Your task to perform on an android device: uninstall "TextNow: Call + Text Unlimited" Image 0: 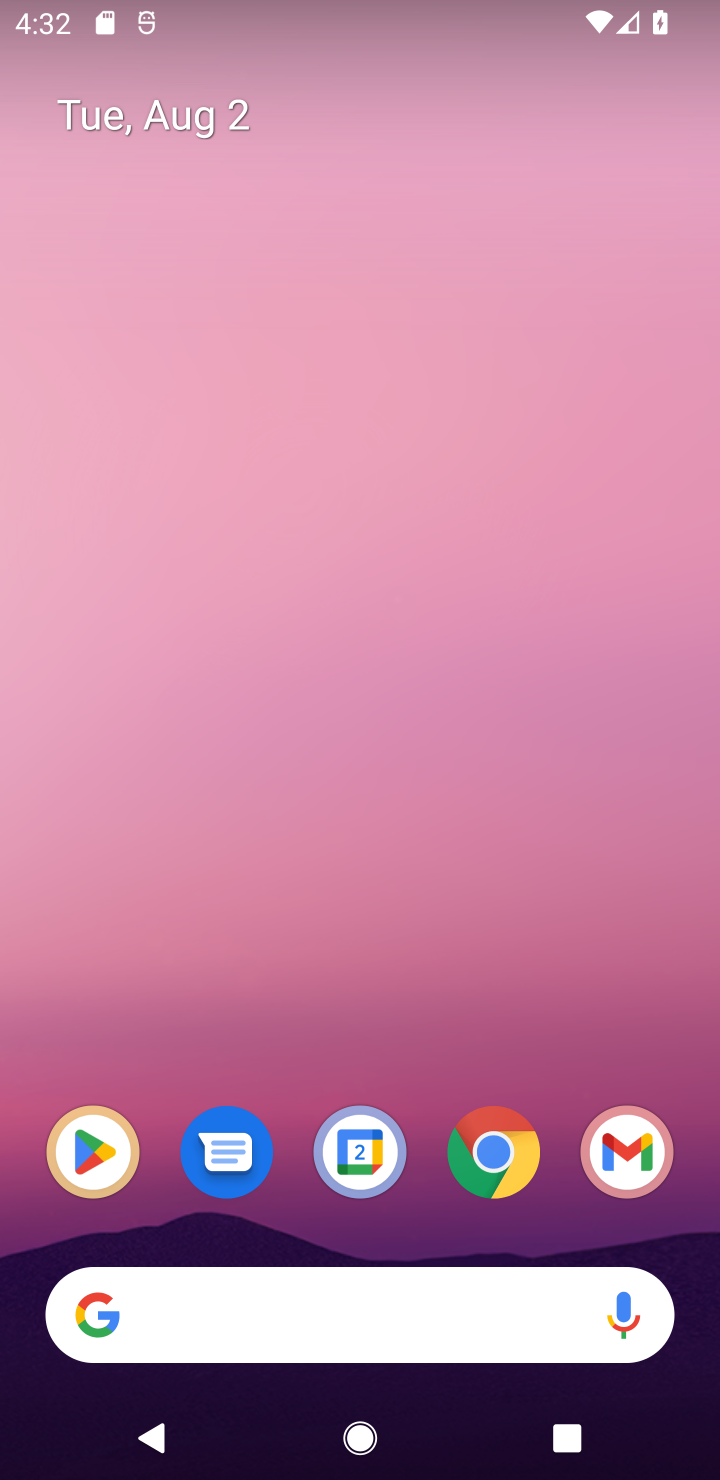
Step 0: drag from (413, 1229) to (66, 1077)
Your task to perform on an android device: uninstall "TextNow: Call + Text Unlimited" Image 1: 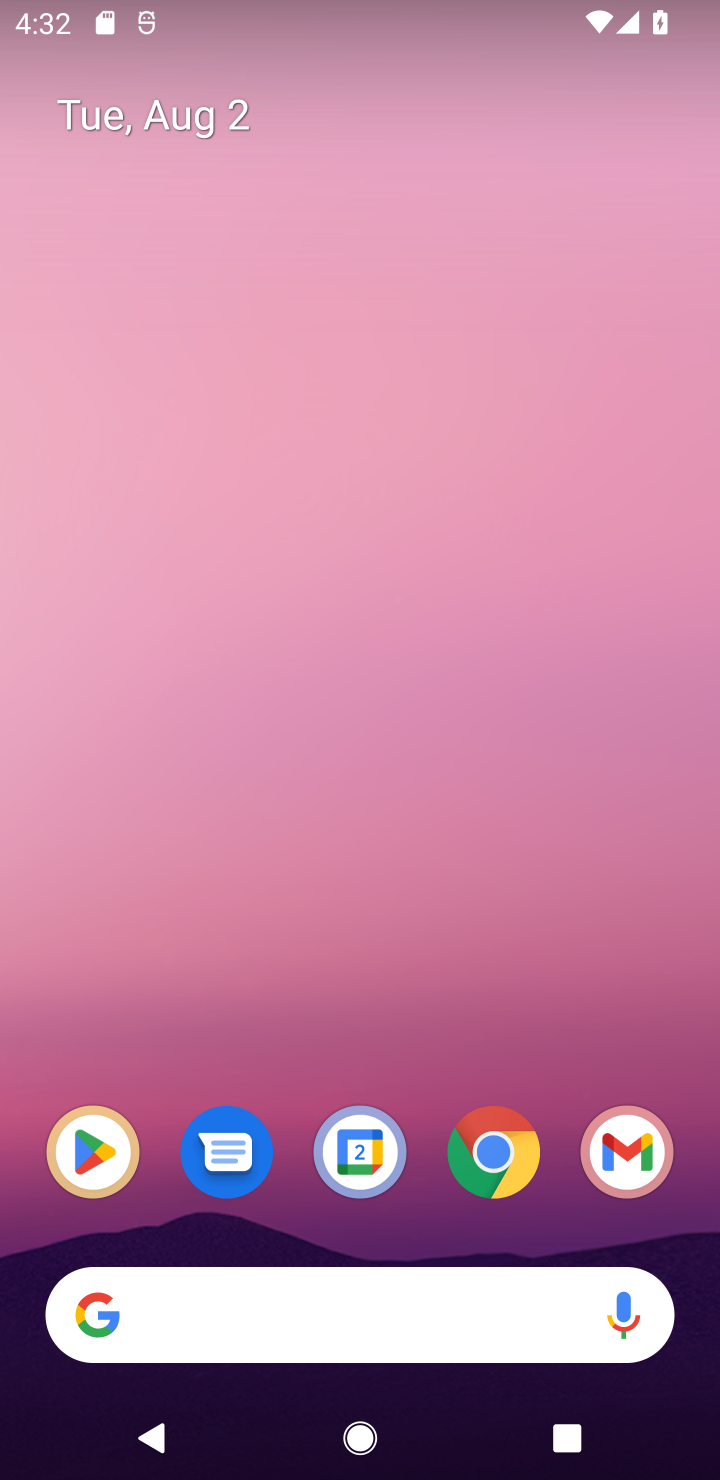
Step 1: drag from (359, 1262) to (670, 960)
Your task to perform on an android device: uninstall "TextNow: Call + Text Unlimited" Image 2: 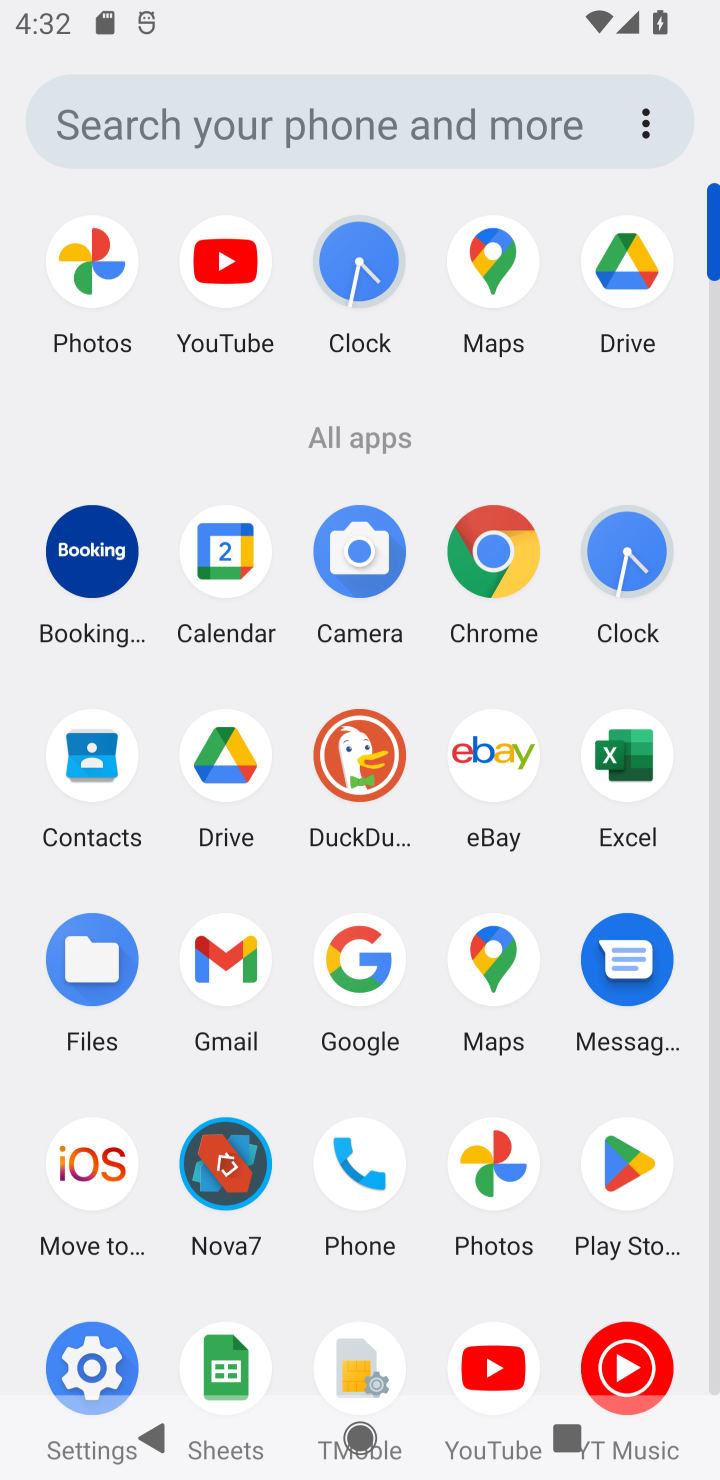
Step 2: click (657, 1160)
Your task to perform on an android device: uninstall "TextNow: Call + Text Unlimited" Image 3: 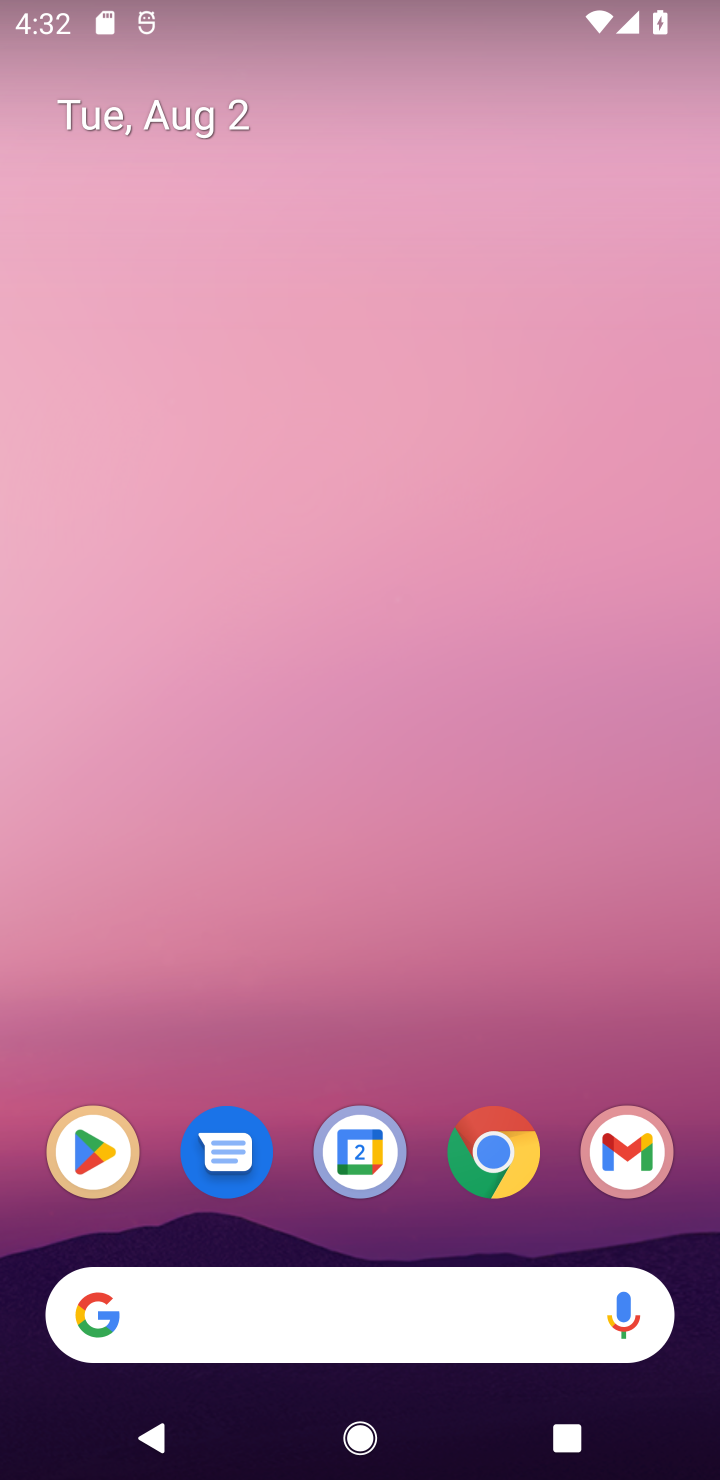
Step 3: click (110, 1145)
Your task to perform on an android device: uninstall "TextNow: Call + Text Unlimited" Image 4: 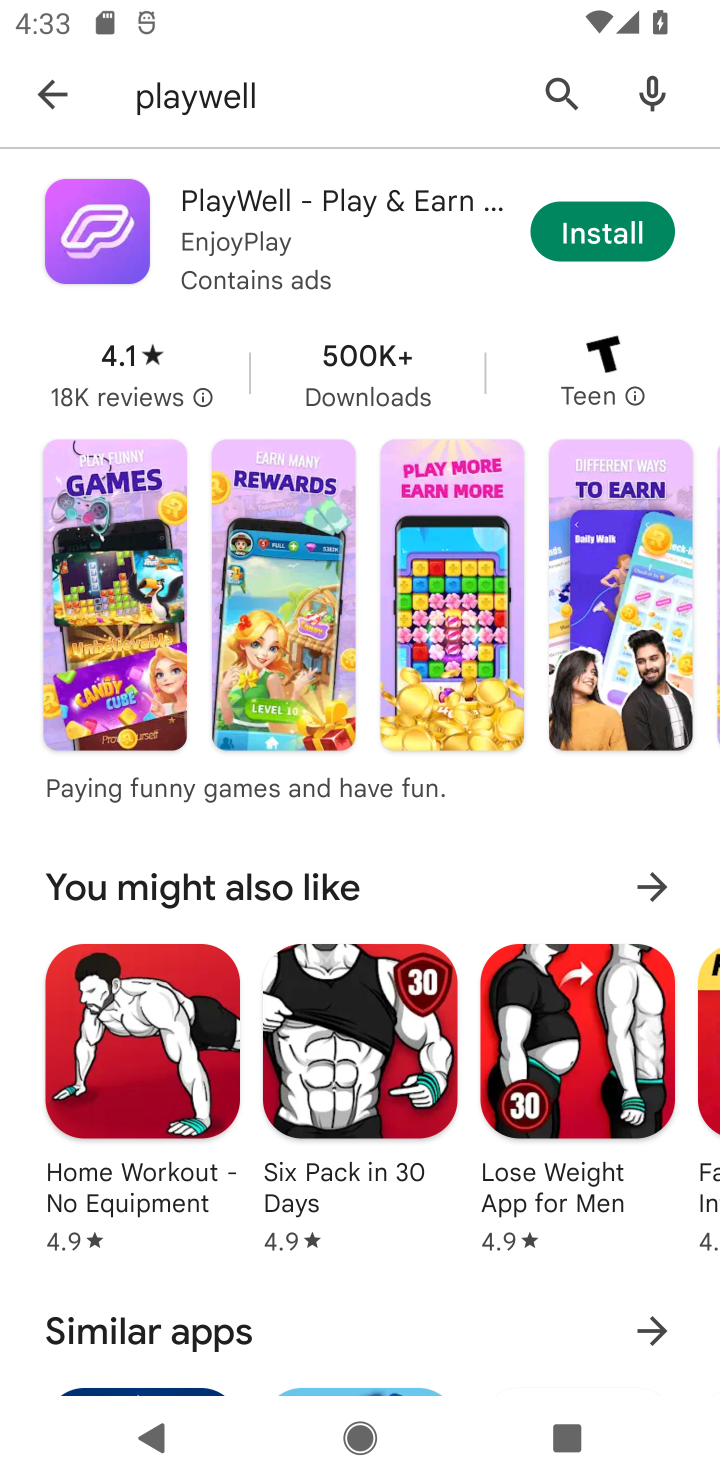
Step 4: click (51, 88)
Your task to perform on an android device: uninstall "TextNow: Call + Text Unlimited" Image 5: 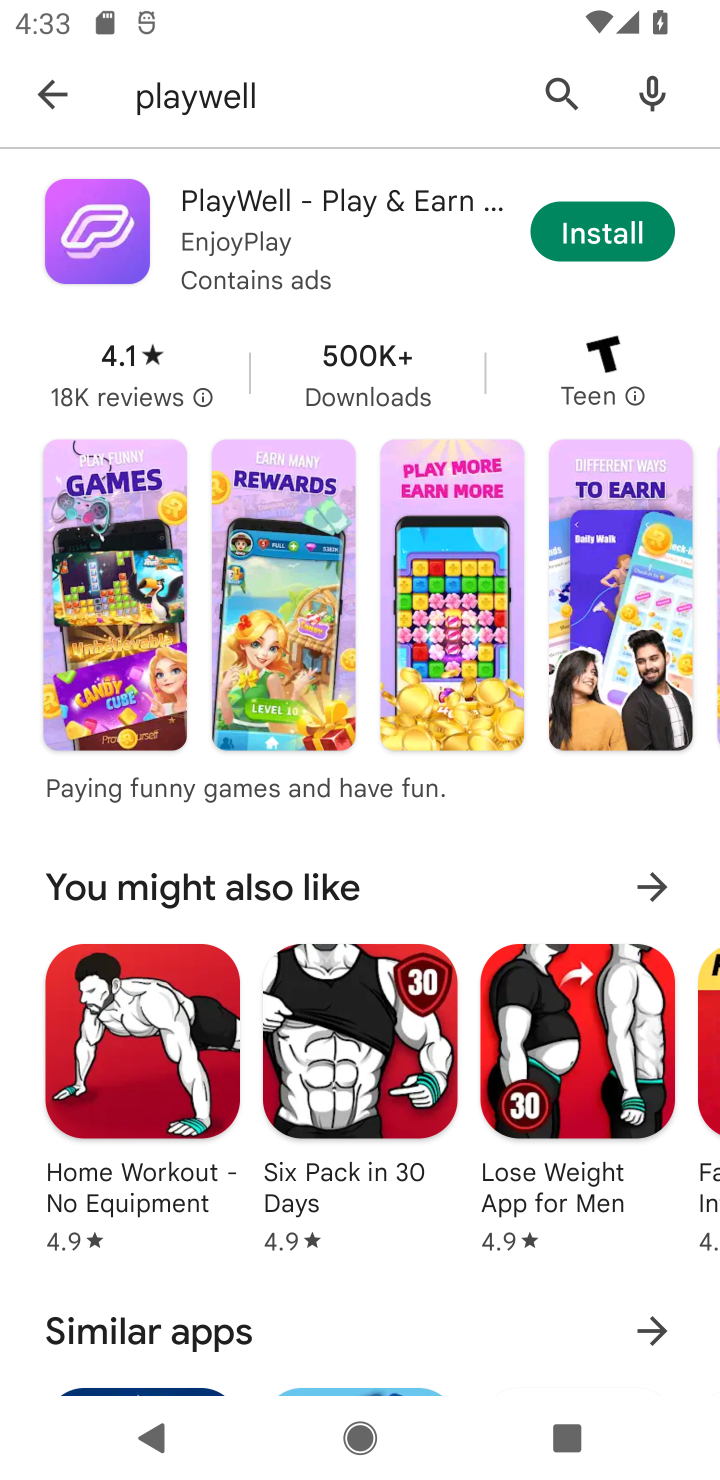
Step 5: click (51, 88)
Your task to perform on an android device: uninstall "TextNow: Call + Text Unlimited" Image 6: 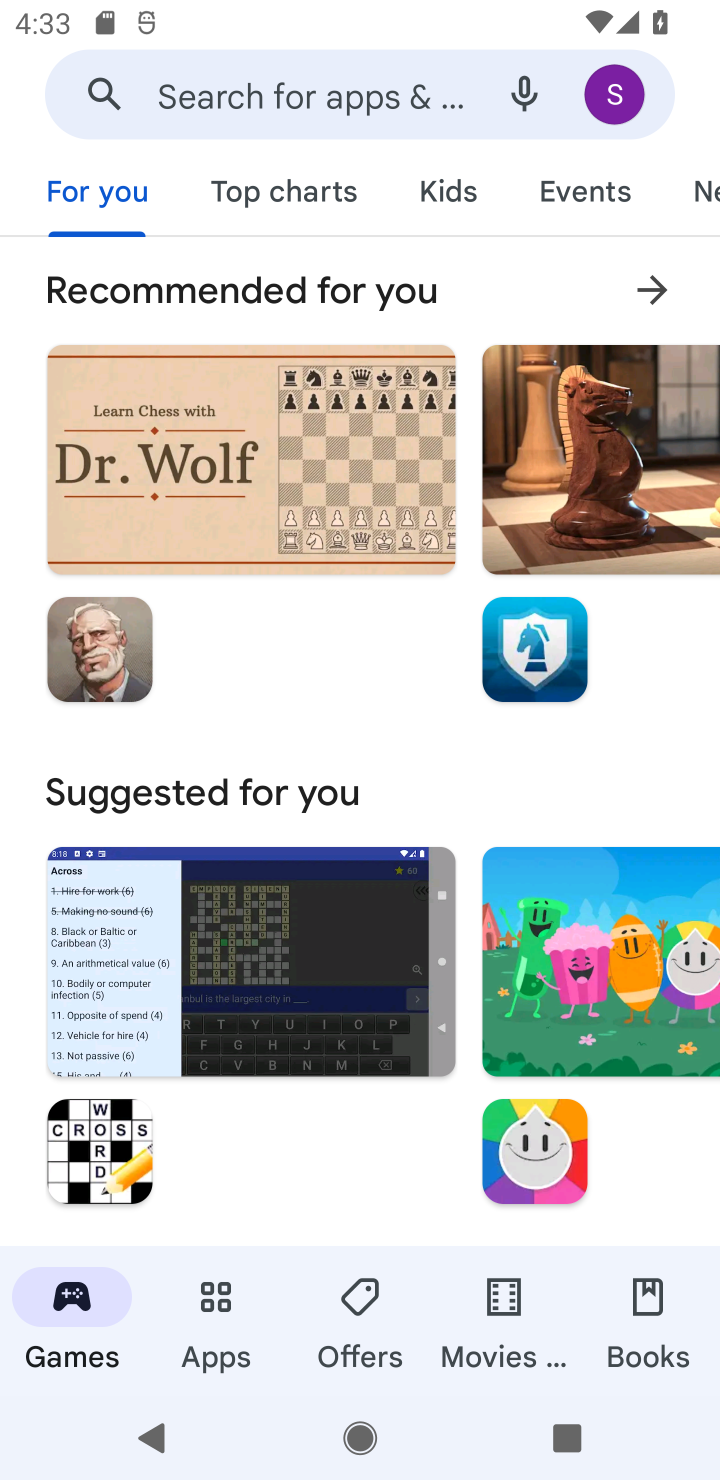
Step 6: click (243, 122)
Your task to perform on an android device: uninstall "TextNow: Call + Text Unlimited" Image 7: 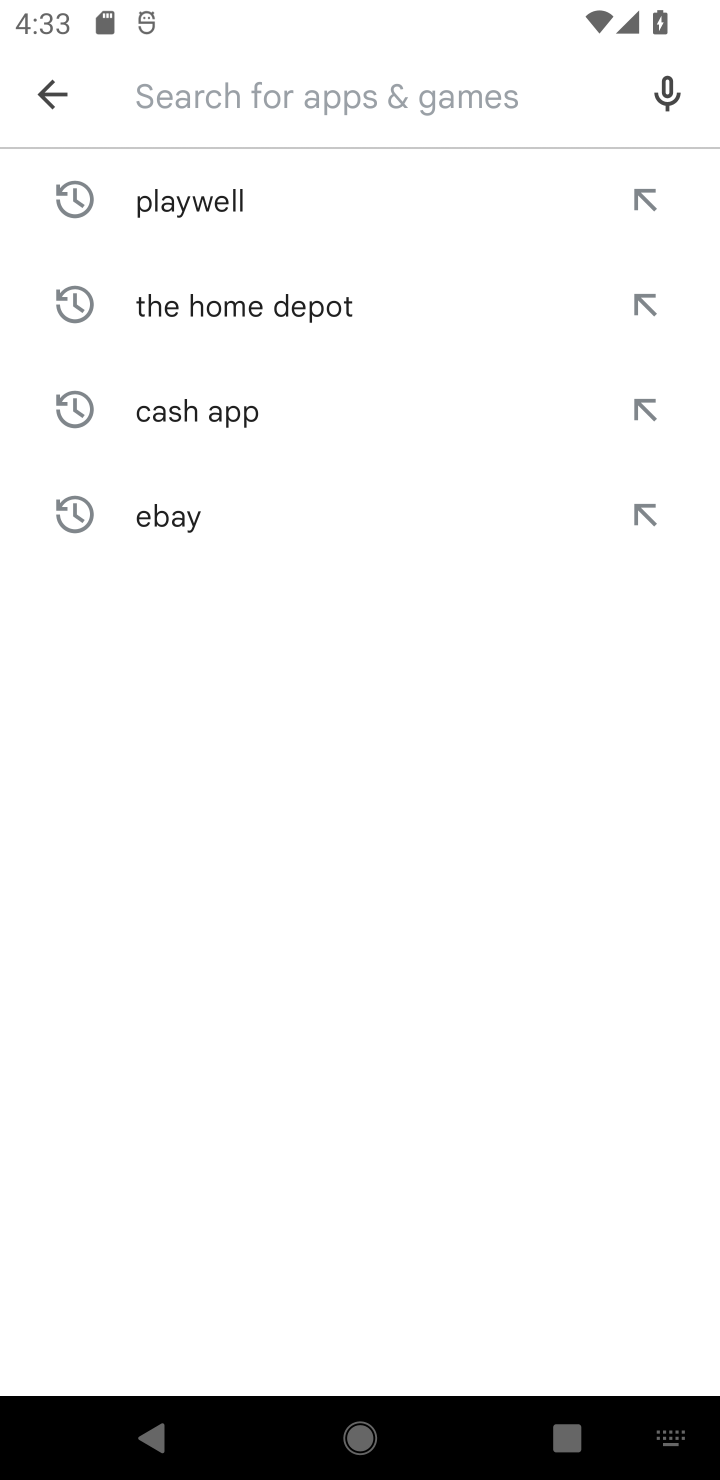
Step 7: type "TextNow: Call + Text Unlimited"
Your task to perform on an android device: uninstall "TextNow: Call + Text Unlimited" Image 8: 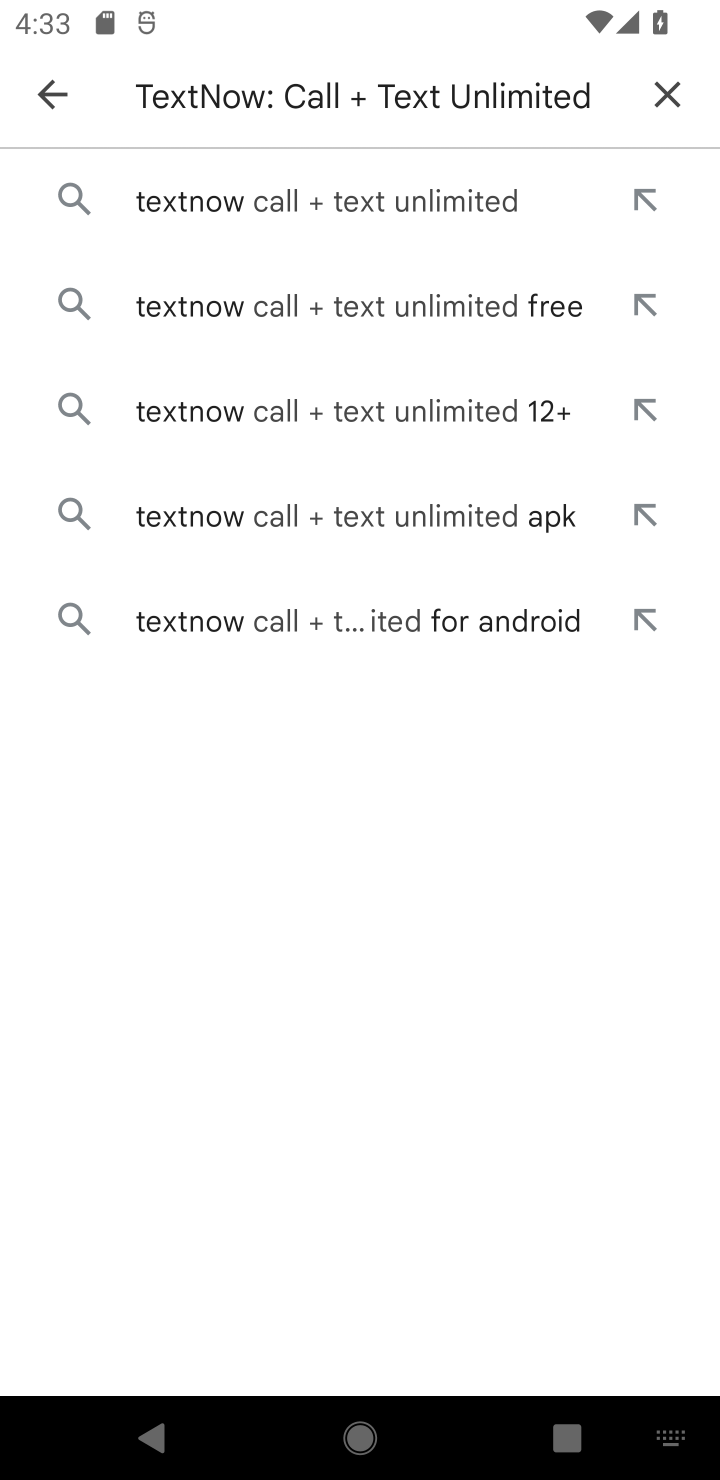
Step 8: click (258, 211)
Your task to perform on an android device: uninstall "TextNow: Call + Text Unlimited" Image 9: 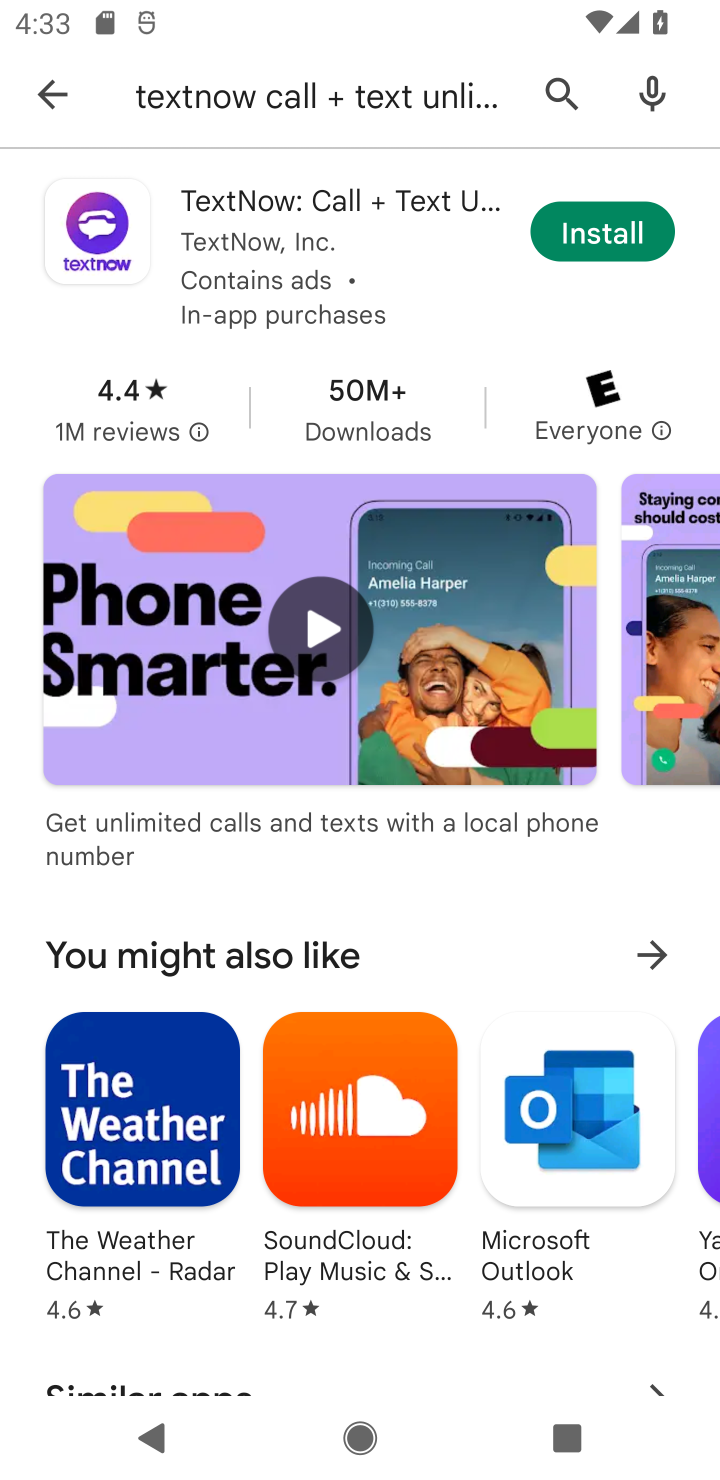
Step 9: task complete